Your task to perform on an android device: Open internet settings Image 0: 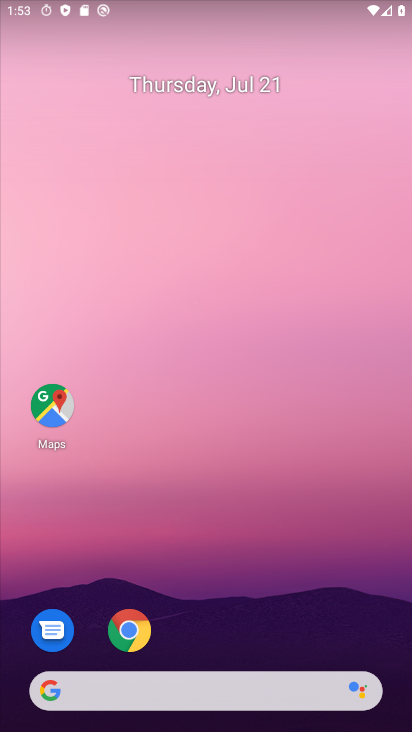
Step 0: drag from (206, 610) to (261, 52)
Your task to perform on an android device: Open internet settings Image 1: 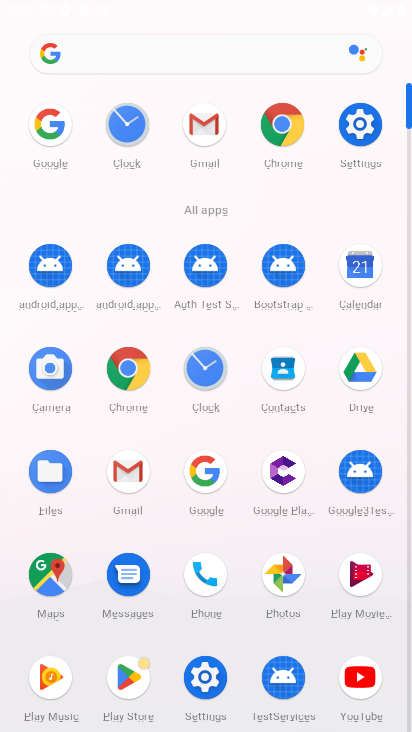
Step 1: click (358, 125)
Your task to perform on an android device: Open internet settings Image 2: 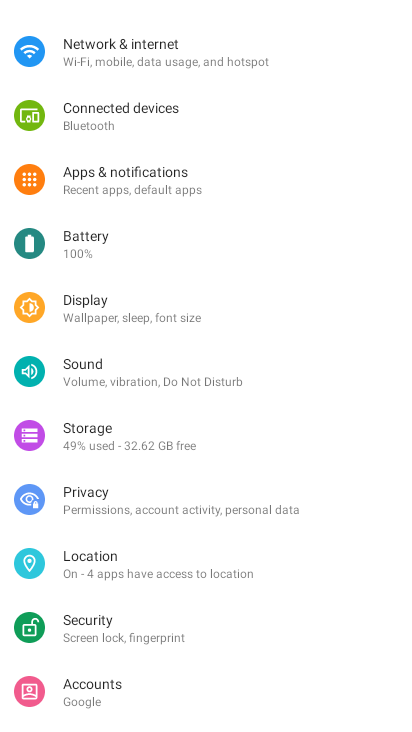
Step 2: drag from (129, 63) to (144, 298)
Your task to perform on an android device: Open internet settings Image 3: 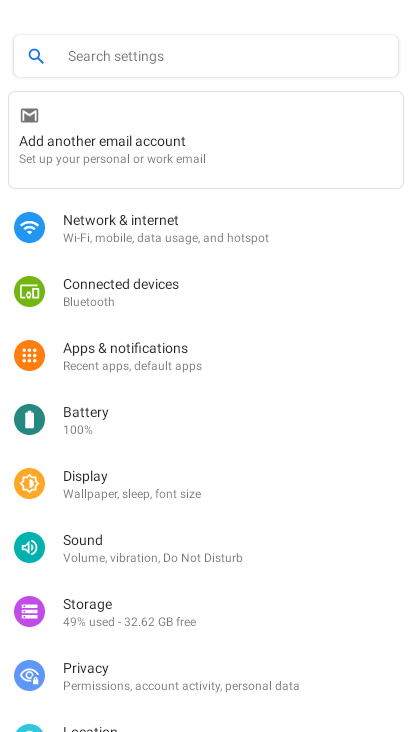
Step 3: click (120, 230)
Your task to perform on an android device: Open internet settings Image 4: 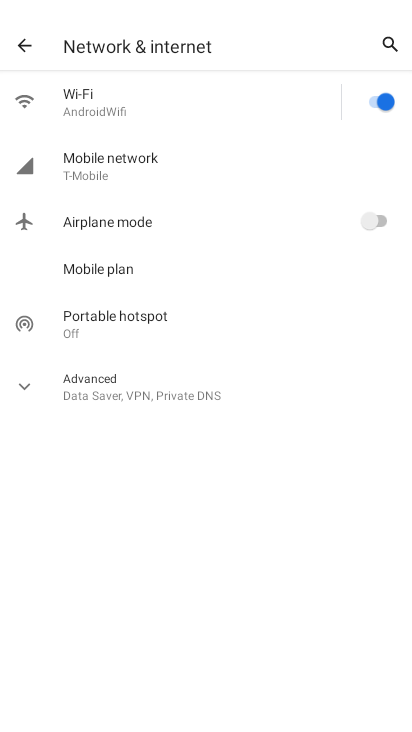
Step 4: click (129, 104)
Your task to perform on an android device: Open internet settings Image 5: 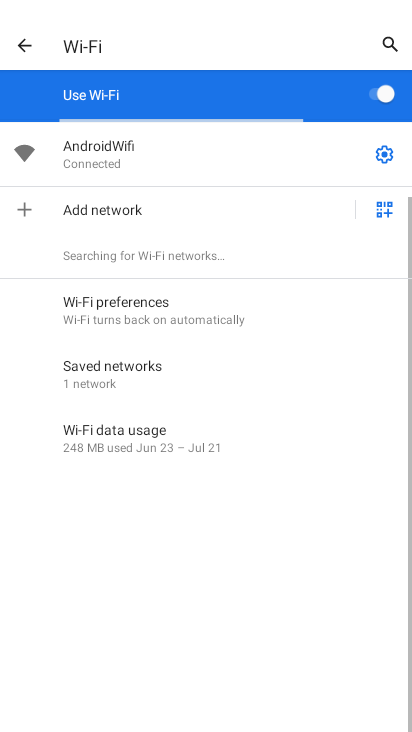
Step 5: click (142, 147)
Your task to perform on an android device: Open internet settings Image 6: 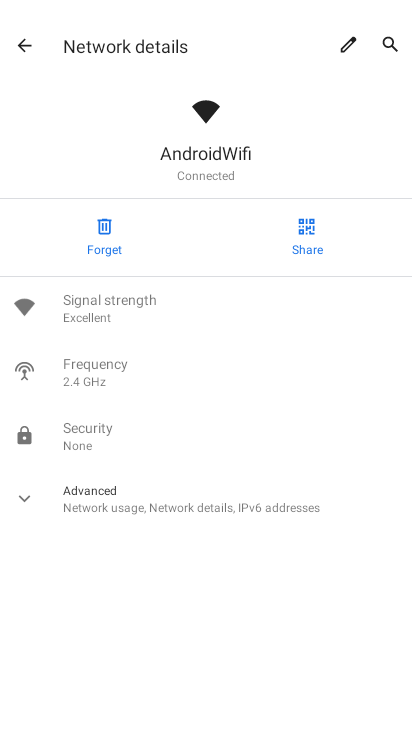
Step 6: task complete